Your task to perform on an android device: turn on the 24-hour format for clock Image 0: 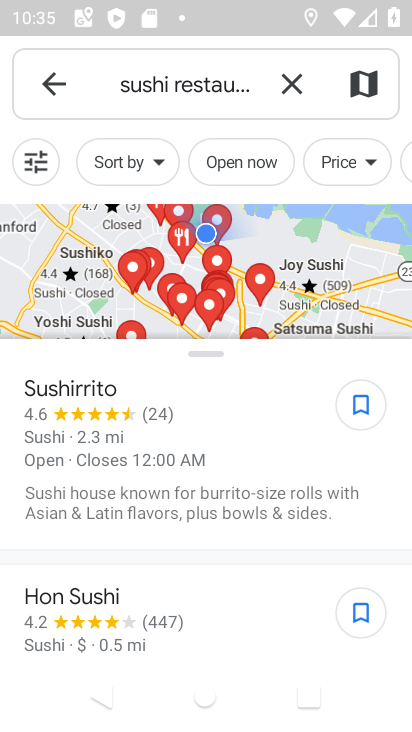
Step 0: press home button
Your task to perform on an android device: turn on the 24-hour format for clock Image 1: 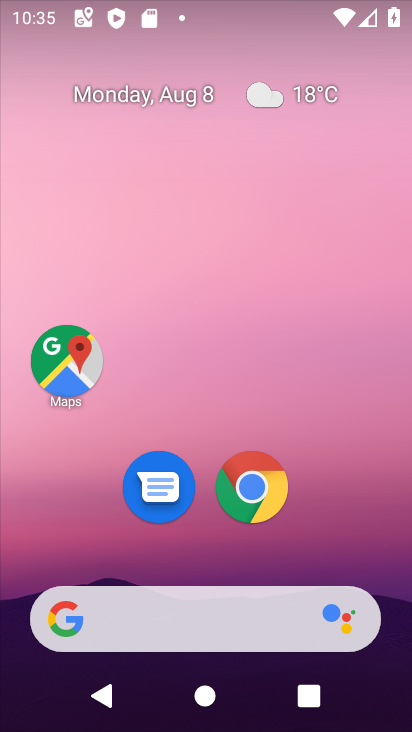
Step 1: drag from (204, 567) to (215, 85)
Your task to perform on an android device: turn on the 24-hour format for clock Image 2: 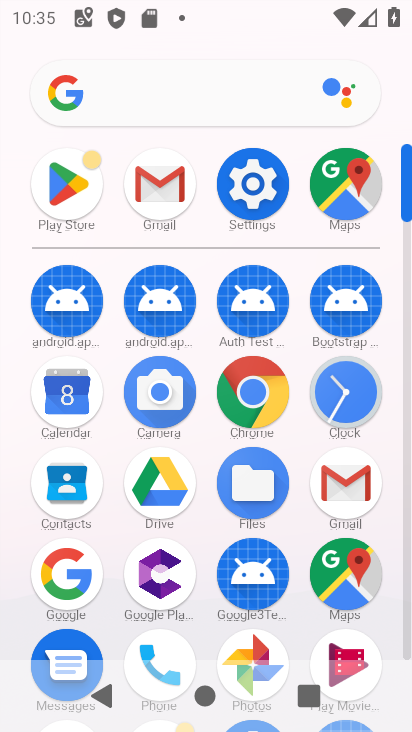
Step 2: click (344, 376)
Your task to perform on an android device: turn on the 24-hour format for clock Image 3: 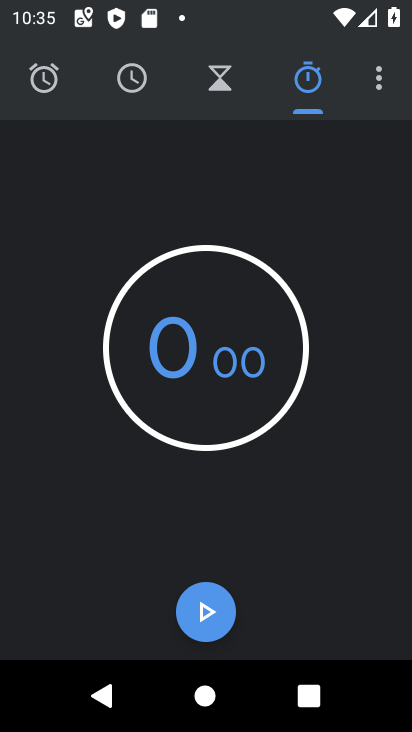
Step 3: click (382, 87)
Your task to perform on an android device: turn on the 24-hour format for clock Image 4: 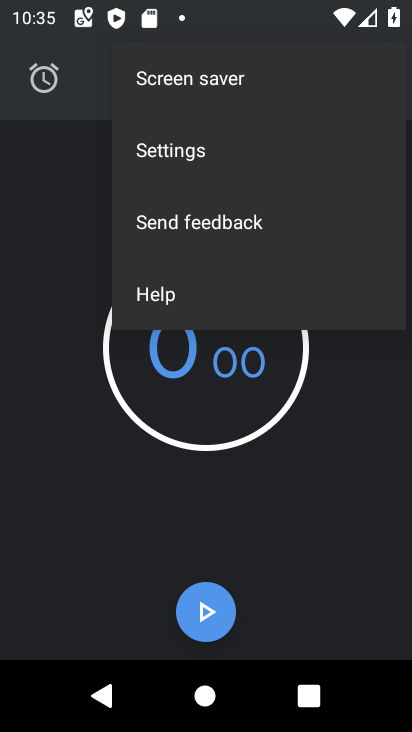
Step 4: click (186, 152)
Your task to perform on an android device: turn on the 24-hour format for clock Image 5: 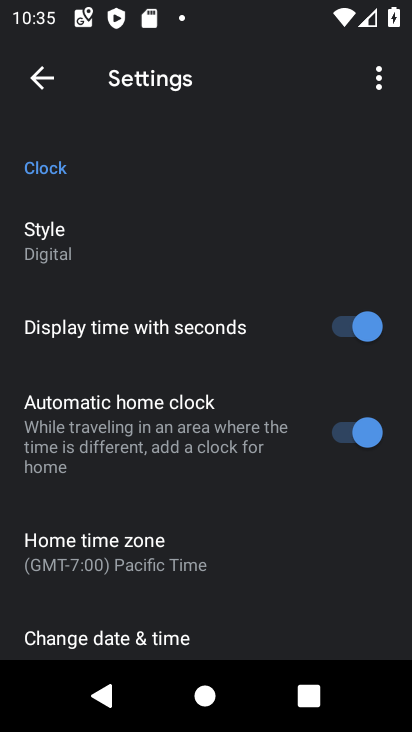
Step 5: drag from (123, 560) to (129, 284)
Your task to perform on an android device: turn on the 24-hour format for clock Image 6: 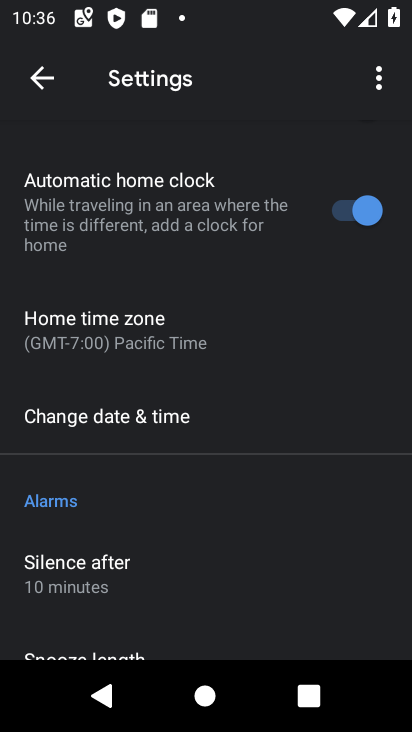
Step 6: click (160, 416)
Your task to perform on an android device: turn on the 24-hour format for clock Image 7: 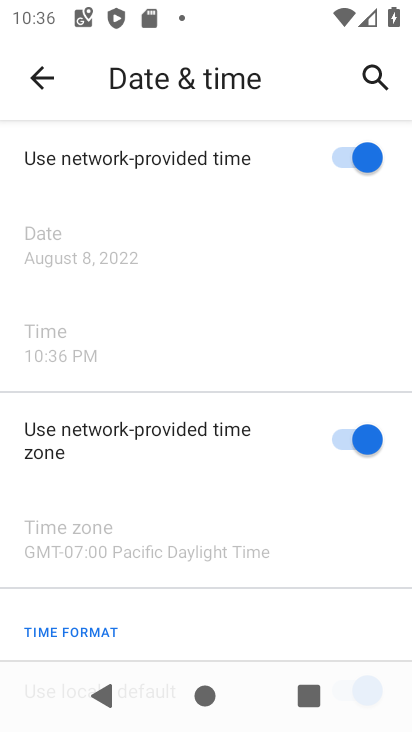
Step 7: drag from (244, 591) to (266, 343)
Your task to perform on an android device: turn on the 24-hour format for clock Image 8: 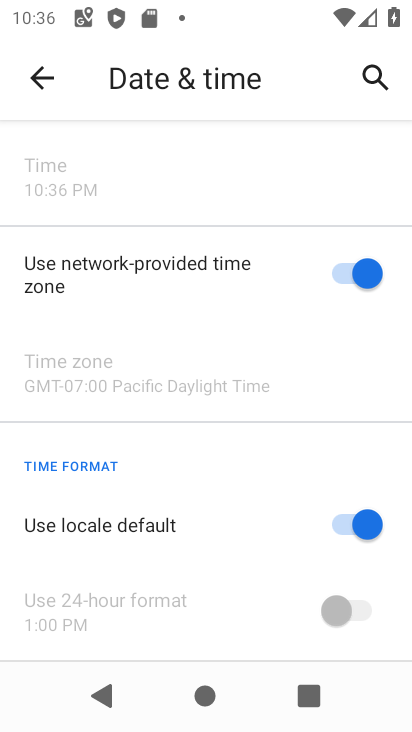
Step 8: click (369, 515)
Your task to perform on an android device: turn on the 24-hour format for clock Image 9: 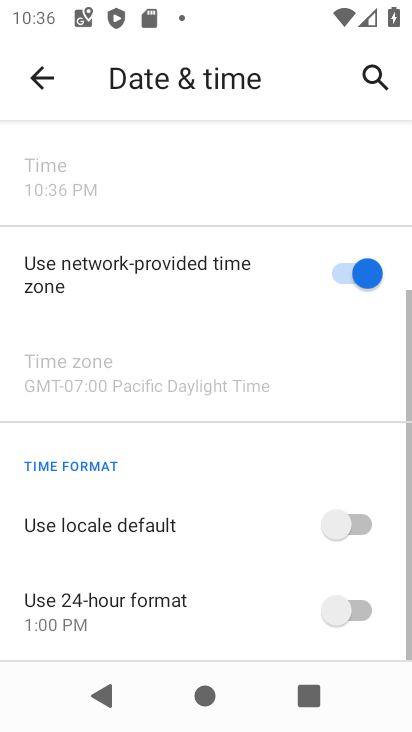
Step 9: click (354, 608)
Your task to perform on an android device: turn on the 24-hour format for clock Image 10: 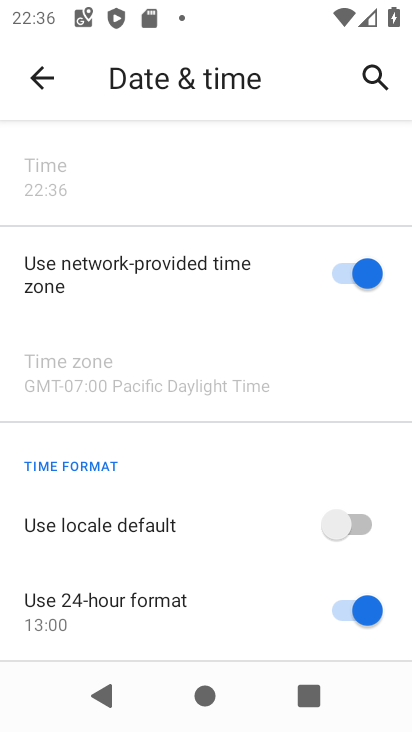
Step 10: task complete